Your task to perform on an android device: Go to eBay Image 0: 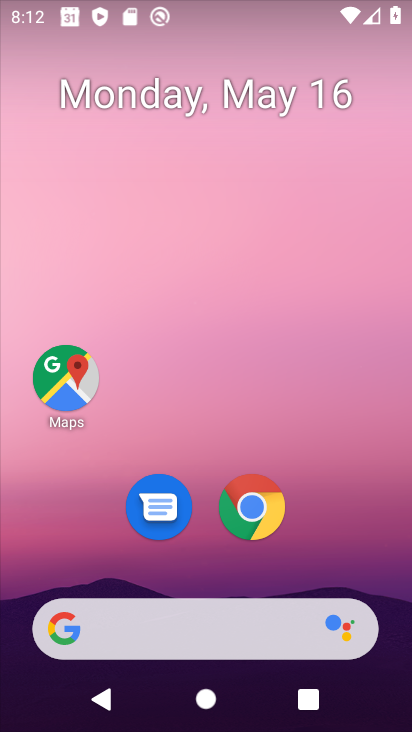
Step 0: click (237, 499)
Your task to perform on an android device: Go to eBay Image 1: 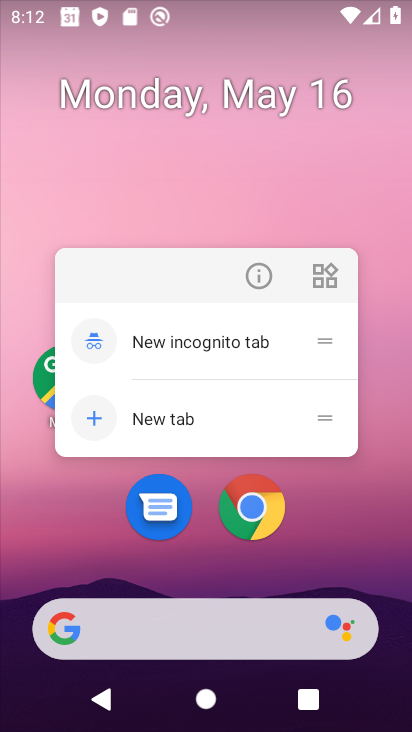
Step 1: click (258, 485)
Your task to perform on an android device: Go to eBay Image 2: 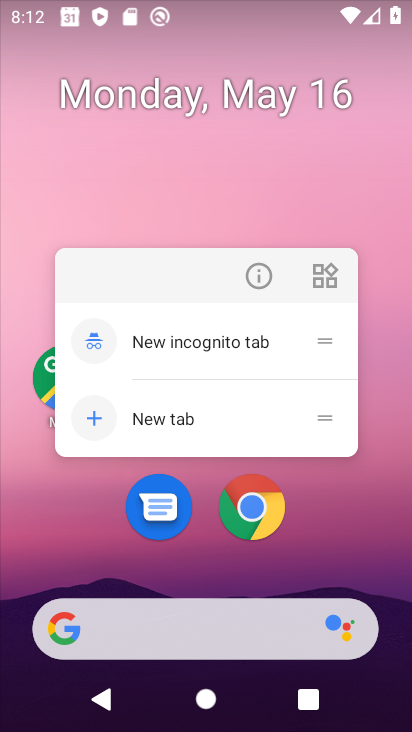
Step 2: click (260, 497)
Your task to perform on an android device: Go to eBay Image 3: 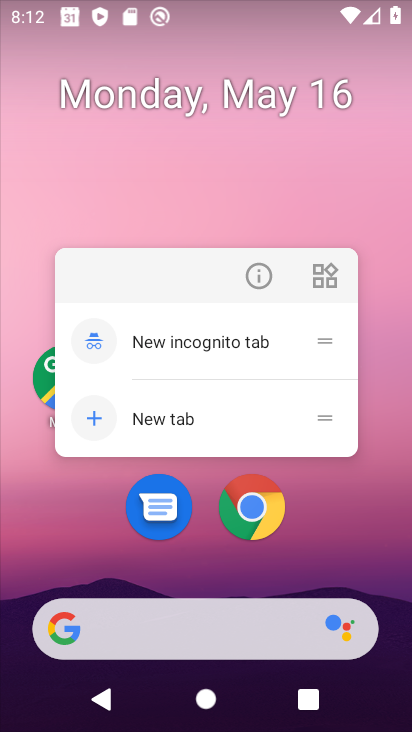
Step 3: click (251, 508)
Your task to perform on an android device: Go to eBay Image 4: 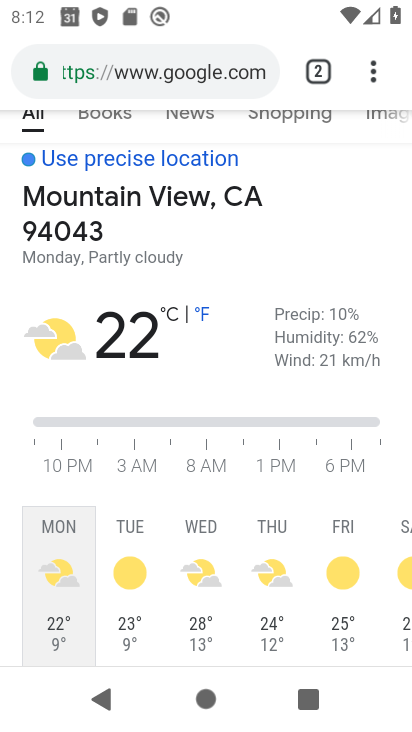
Step 4: click (187, 67)
Your task to perform on an android device: Go to eBay Image 5: 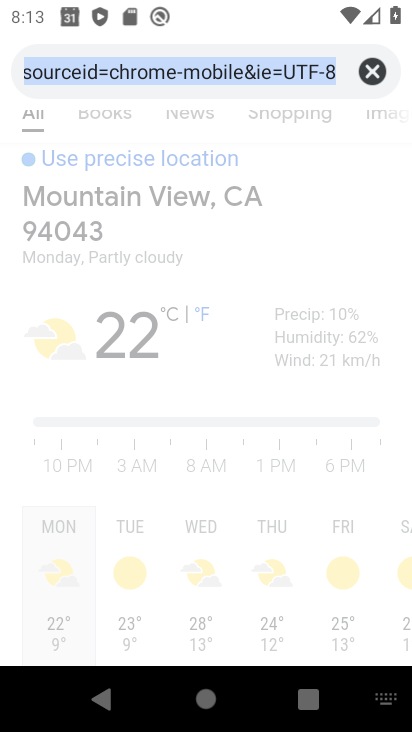
Step 5: click (372, 73)
Your task to perform on an android device: Go to eBay Image 6: 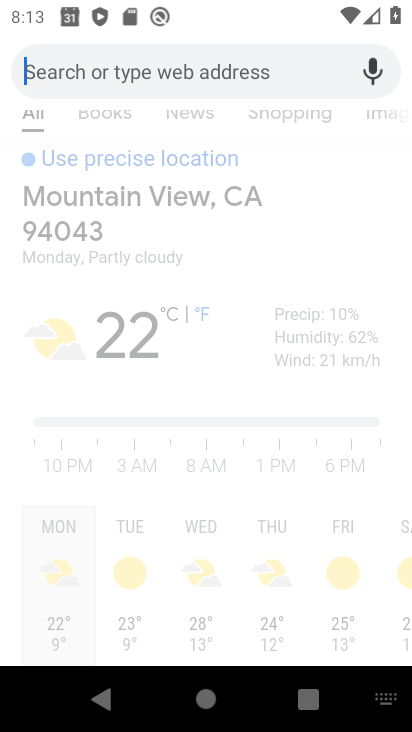
Step 6: click (376, 75)
Your task to perform on an android device: Go to eBay Image 7: 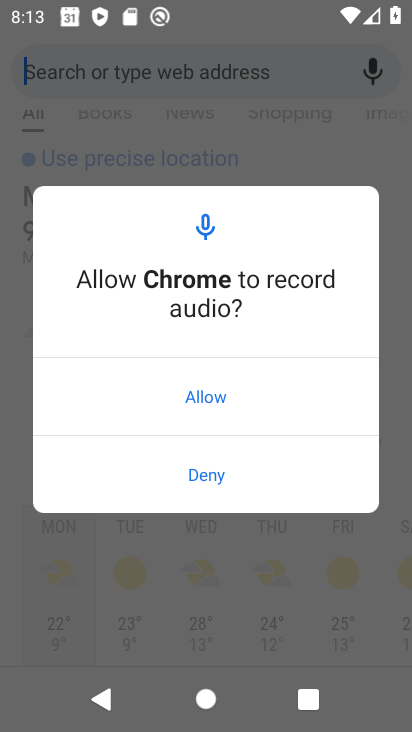
Step 7: click (211, 727)
Your task to perform on an android device: Go to eBay Image 8: 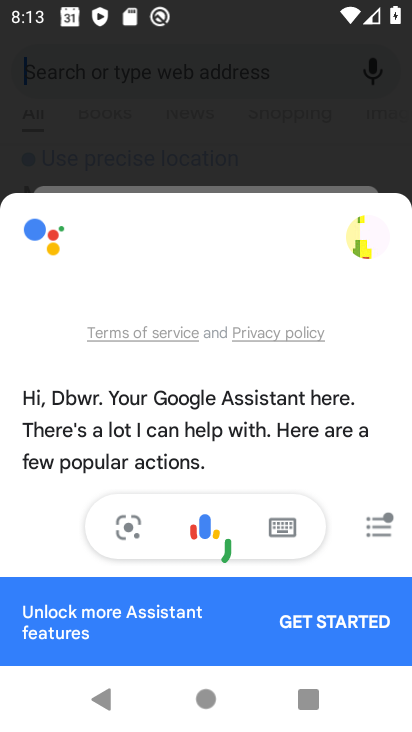
Step 8: press back button
Your task to perform on an android device: Go to eBay Image 9: 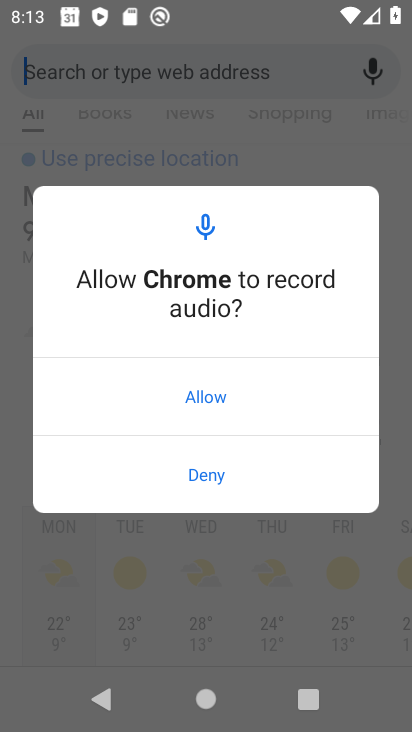
Step 9: press back button
Your task to perform on an android device: Go to eBay Image 10: 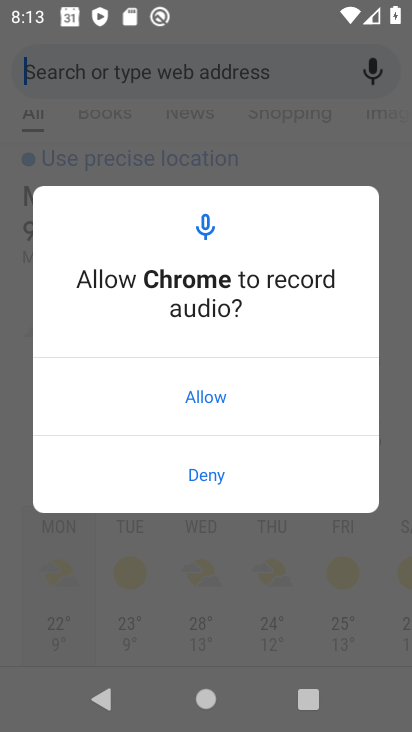
Step 10: click (206, 389)
Your task to perform on an android device: Go to eBay Image 11: 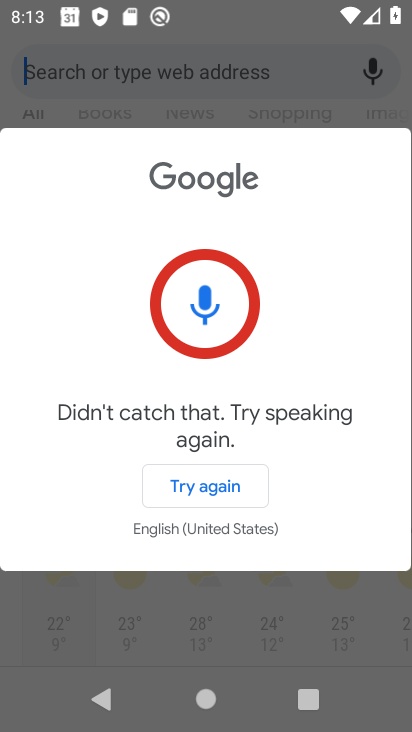
Step 11: click (155, 63)
Your task to perform on an android device: Go to eBay Image 12: 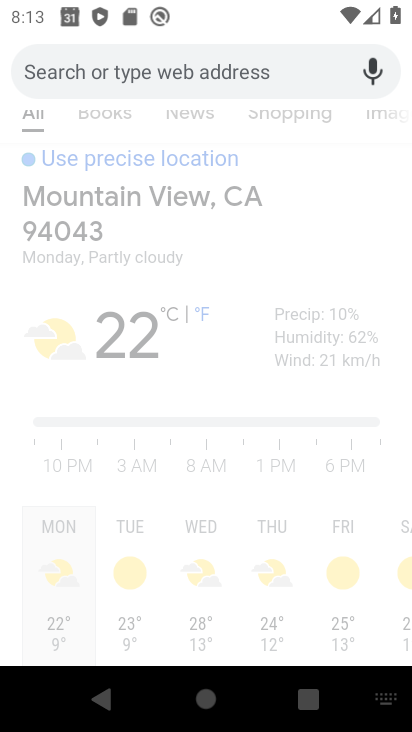
Step 12: click (63, 60)
Your task to perform on an android device: Go to eBay Image 13: 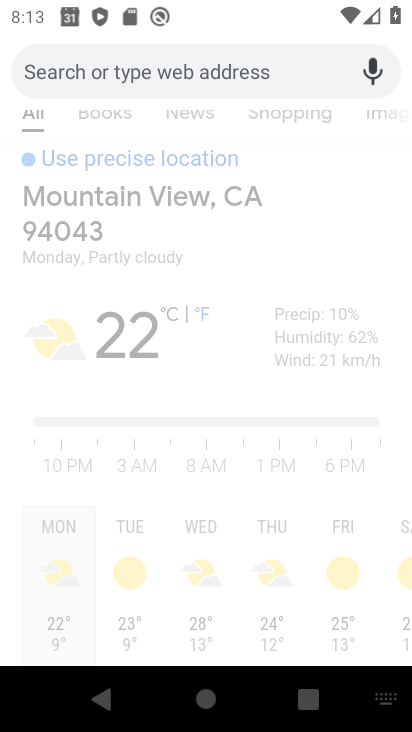
Step 13: type " eBay"
Your task to perform on an android device: Go to eBay Image 14: 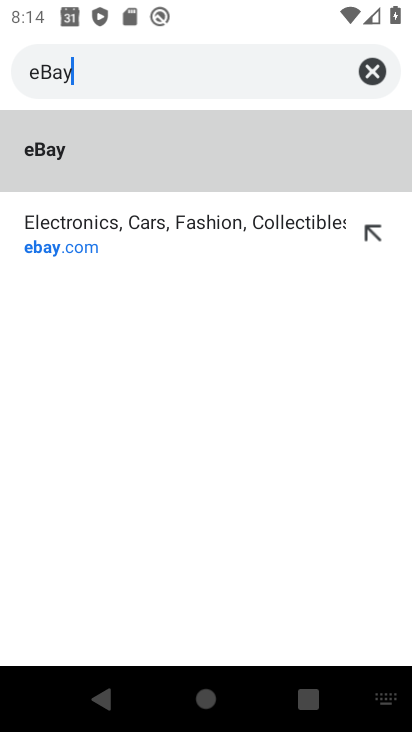
Step 14: click (33, 148)
Your task to perform on an android device: Go to eBay Image 15: 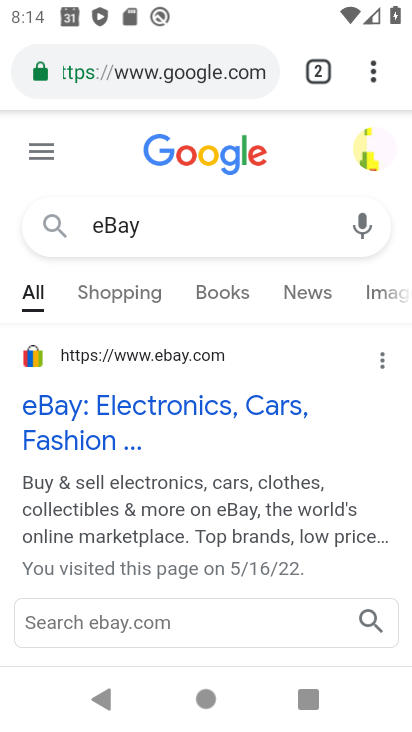
Step 15: click (62, 403)
Your task to perform on an android device: Go to eBay Image 16: 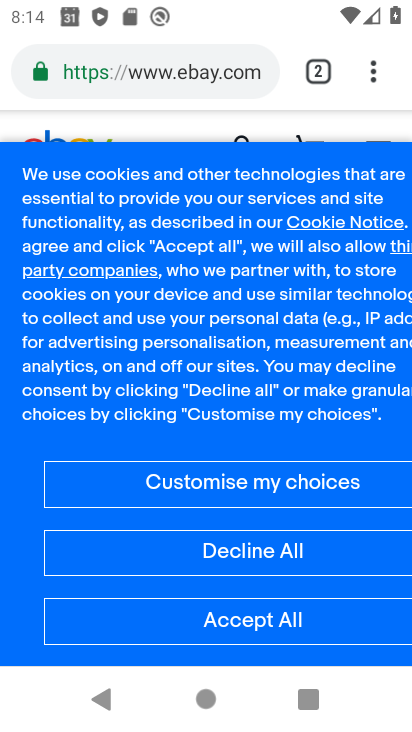
Step 16: task complete